Your task to perform on an android device: turn off data saver in the chrome app Image 0: 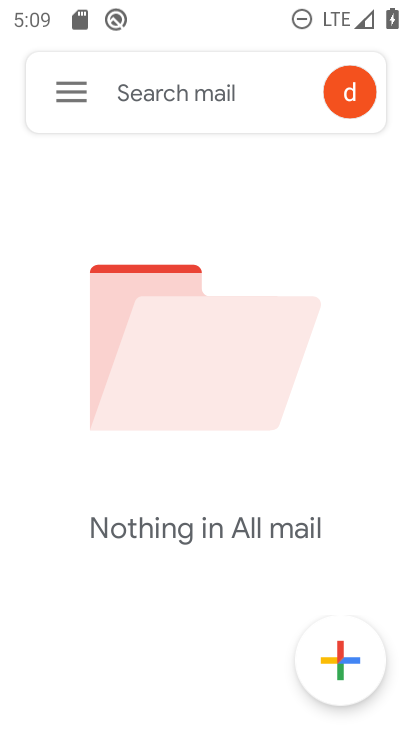
Step 0: press home button
Your task to perform on an android device: turn off data saver in the chrome app Image 1: 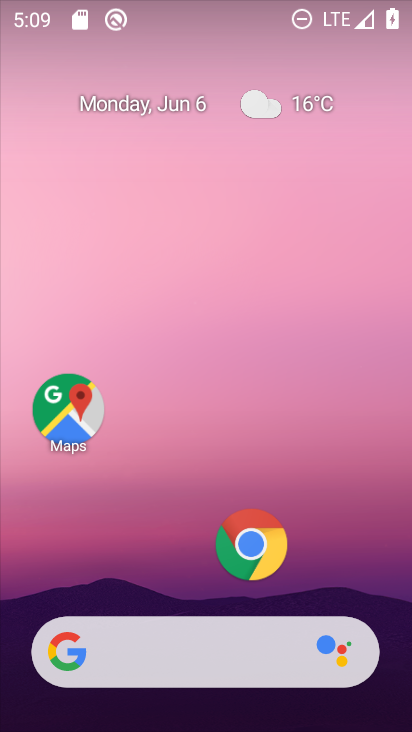
Step 1: click (243, 537)
Your task to perform on an android device: turn off data saver in the chrome app Image 2: 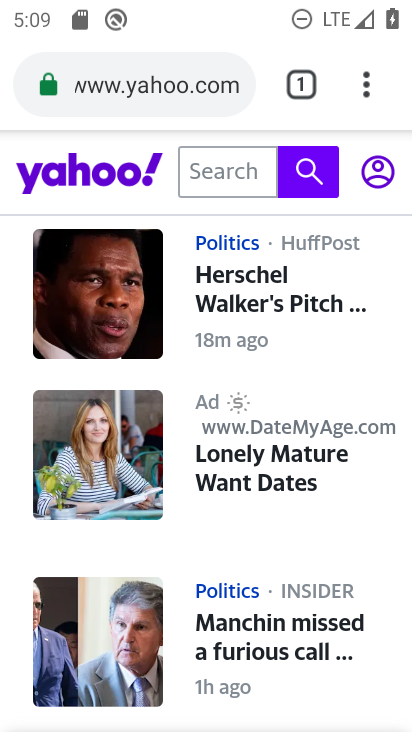
Step 2: click (367, 80)
Your task to perform on an android device: turn off data saver in the chrome app Image 3: 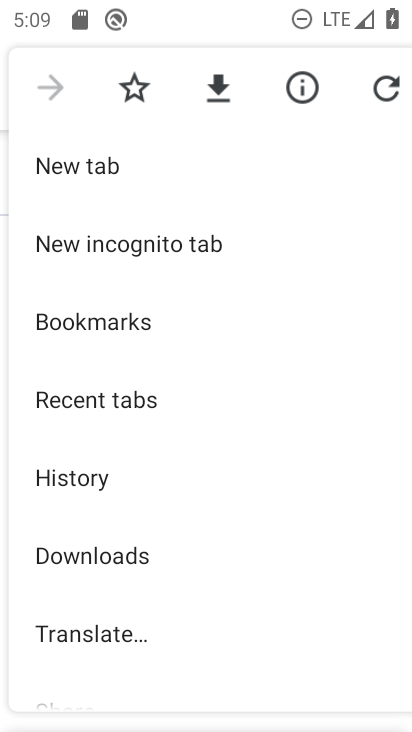
Step 3: drag from (186, 642) to (180, 161)
Your task to perform on an android device: turn off data saver in the chrome app Image 4: 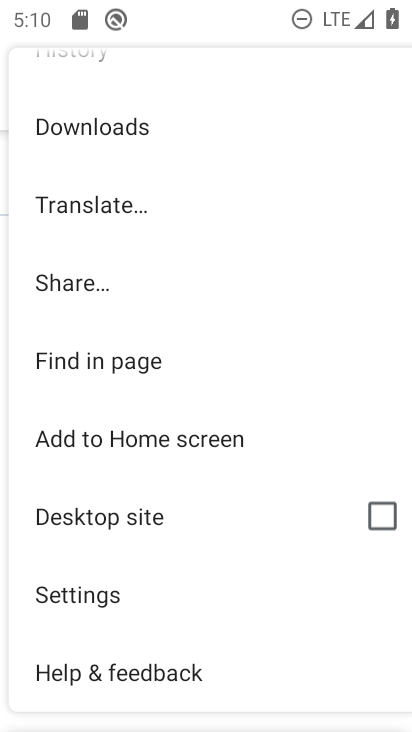
Step 4: click (148, 585)
Your task to perform on an android device: turn off data saver in the chrome app Image 5: 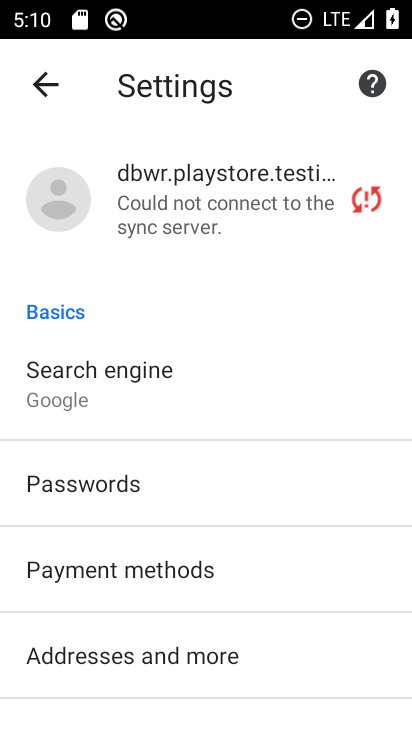
Step 5: drag from (258, 687) to (255, 84)
Your task to perform on an android device: turn off data saver in the chrome app Image 6: 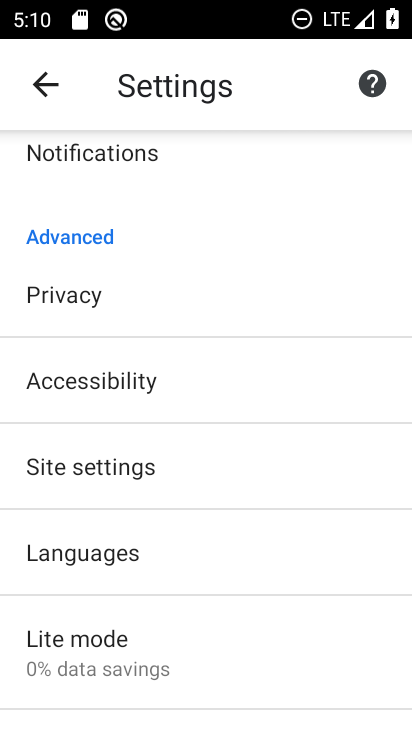
Step 6: click (169, 638)
Your task to perform on an android device: turn off data saver in the chrome app Image 7: 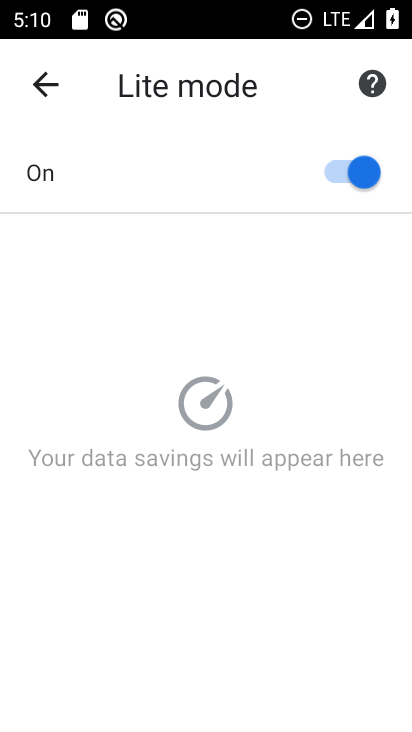
Step 7: click (338, 171)
Your task to perform on an android device: turn off data saver in the chrome app Image 8: 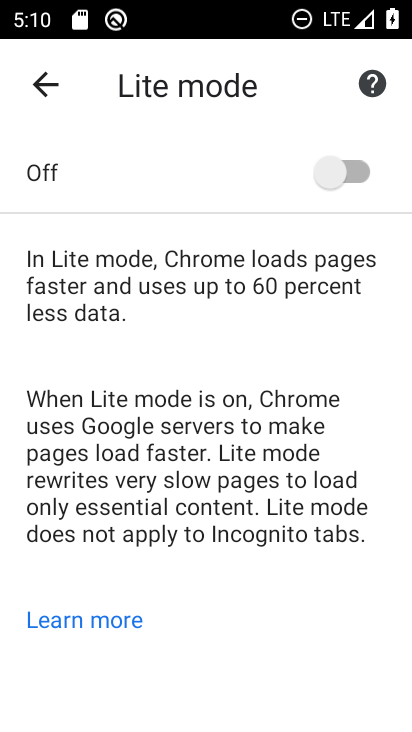
Step 8: task complete